Your task to perform on an android device: turn off javascript in the chrome app Image 0: 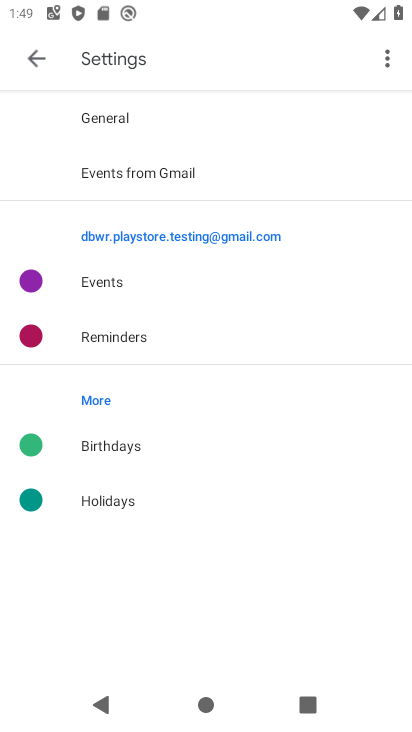
Step 0: press back button
Your task to perform on an android device: turn off javascript in the chrome app Image 1: 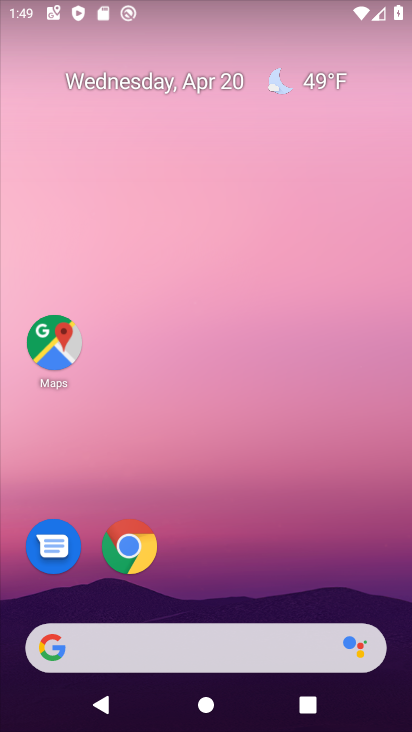
Step 1: drag from (258, 510) to (296, 62)
Your task to perform on an android device: turn off javascript in the chrome app Image 2: 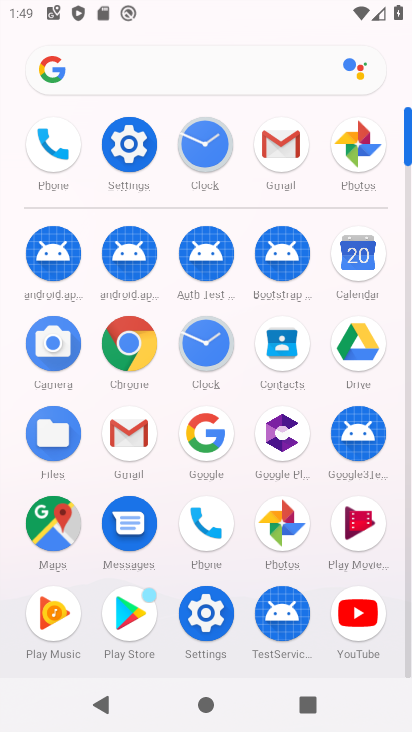
Step 2: click (129, 342)
Your task to perform on an android device: turn off javascript in the chrome app Image 3: 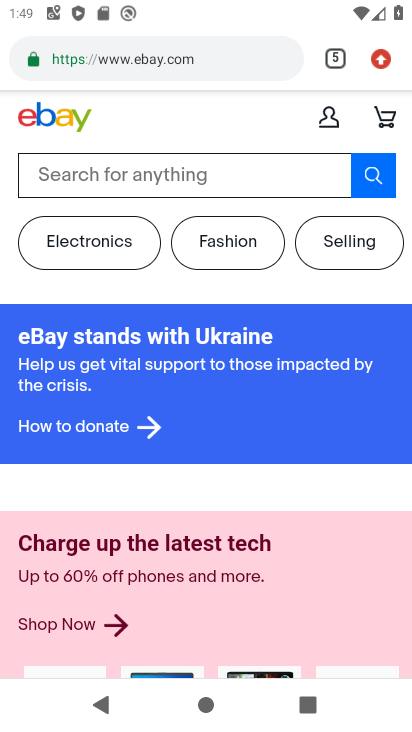
Step 3: click (373, 60)
Your task to perform on an android device: turn off javascript in the chrome app Image 4: 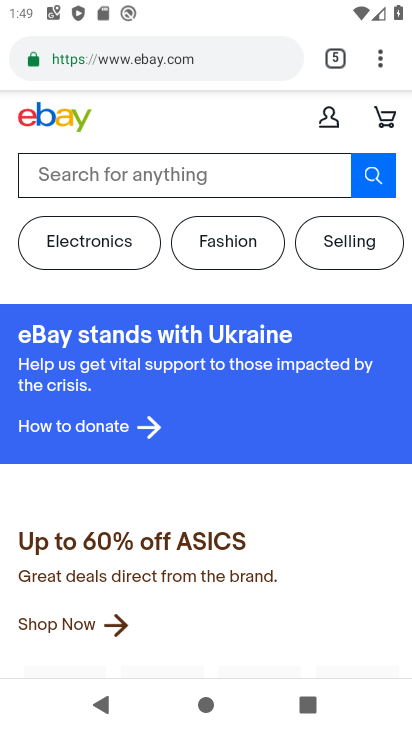
Step 4: drag from (386, 48) to (200, 557)
Your task to perform on an android device: turn off javascript in the chrome app Image 5: 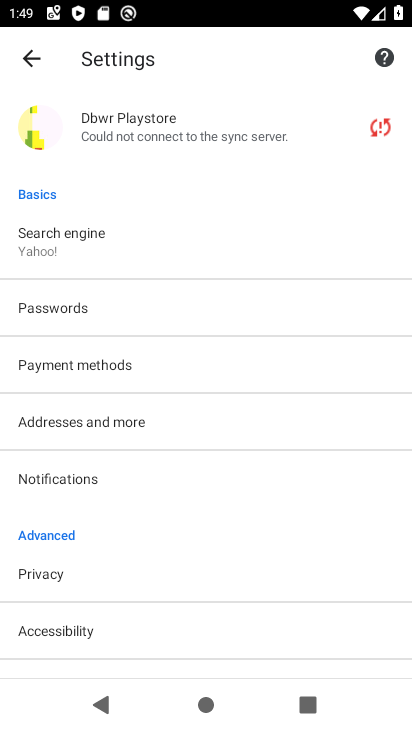
Step 5: drag from (159, 570) to (273, 146)
Your task to perform on an android device: turn off javascript in the chrome app Image 6: 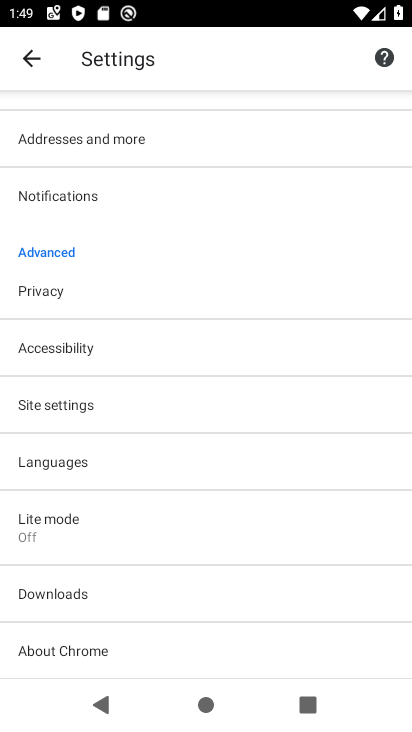
Step 6: click (55, 397)
Your task to perform on an android device: turn off javascript in the chrome app Image 7: 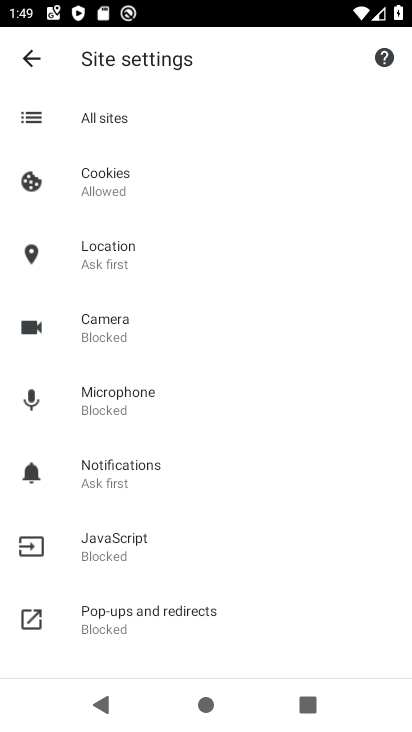
Step 7: click (108, 546)
Your task to perform on an android device: turn off javascript in the chrome app Image 8: 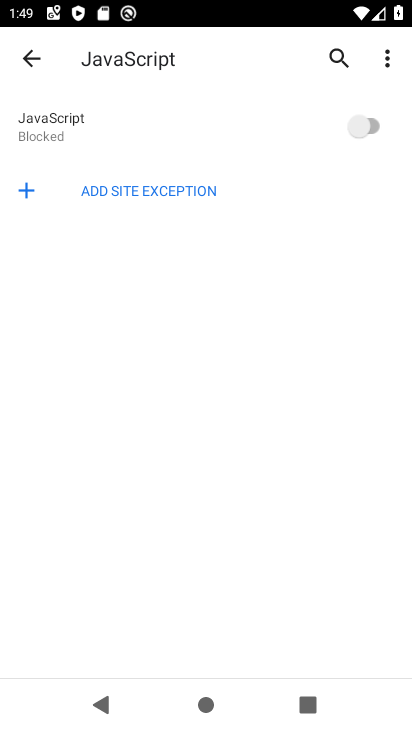
Step 8: task complete